Your task to perform on an android device: choose inbox layout in the gmail app Image 0: 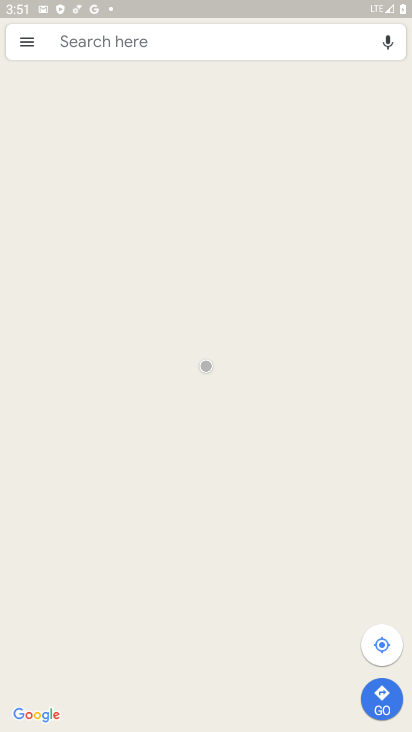
Step 0: press home button
Your task to perform on an android device: choose inbox layout in the gmail app Image 1: 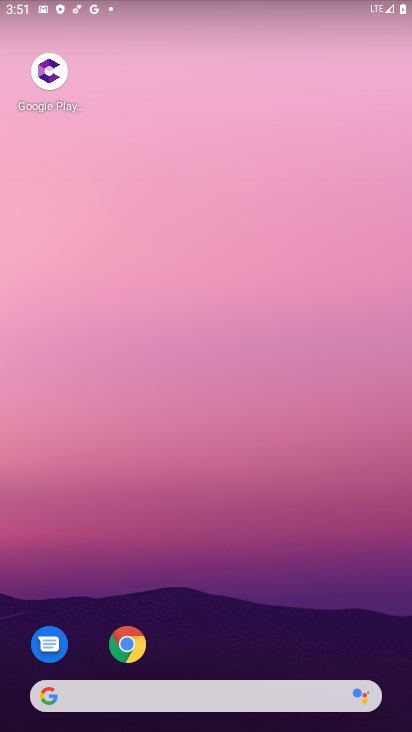
Step 1: drag from (178, 724) to (224, 48)
Your task to perform on an android device: choose inbox layout in the gmail app Image 2: 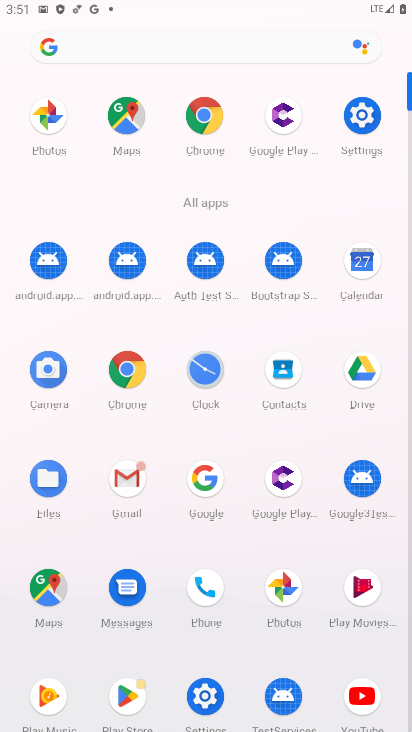
Step 2: click (132, 476)
Your task to perform on an android device: choose inbox layout in the gmail app Image 3: 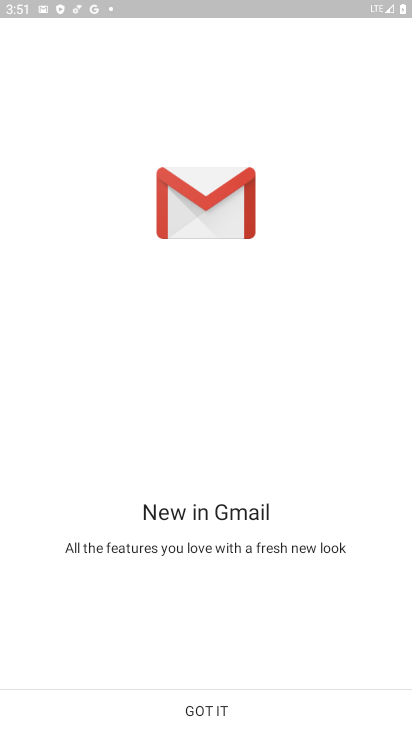
Step 3: click (202, 701)
Your task to perform on an android device: choose inbox layout in the gmail app Image 4: 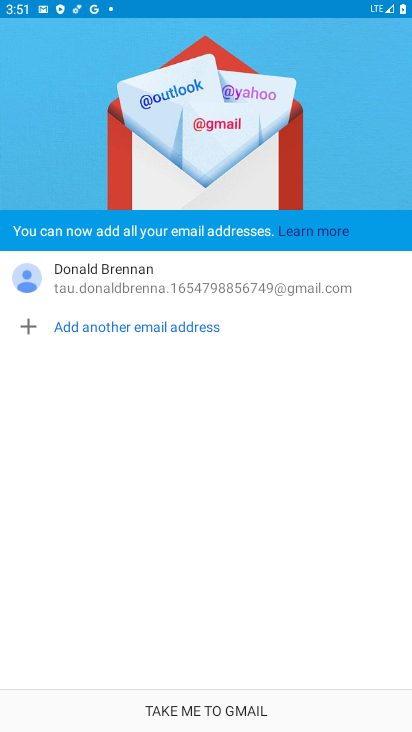
Step 4: click (202, 702)
Your task to perform on an android device: choose inbox layout in the gmail app Image 5: 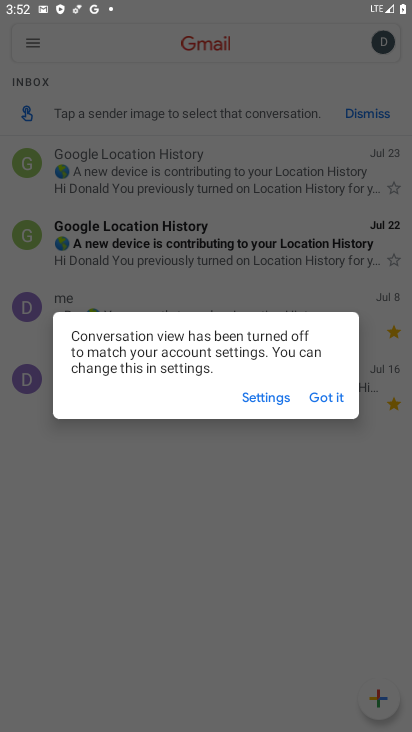
Step 5: click (319, 398)
Your task to perform on an android device: choose inbox layout in the gmail app Image 6: 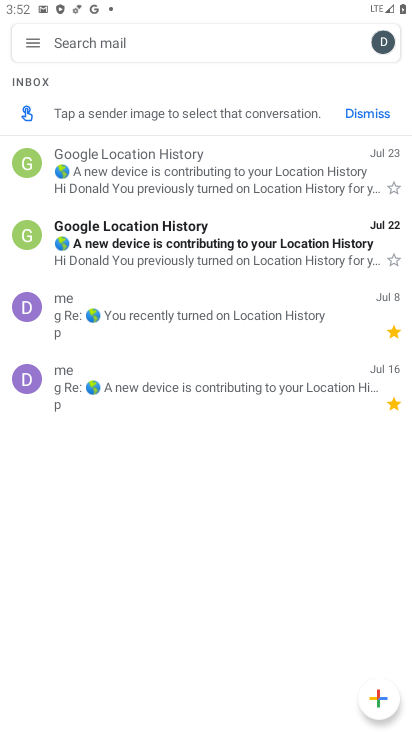
Step 6: click (29, 40)
Your task to perform on an android device: choose inbox layout in the gmail app Image 7: 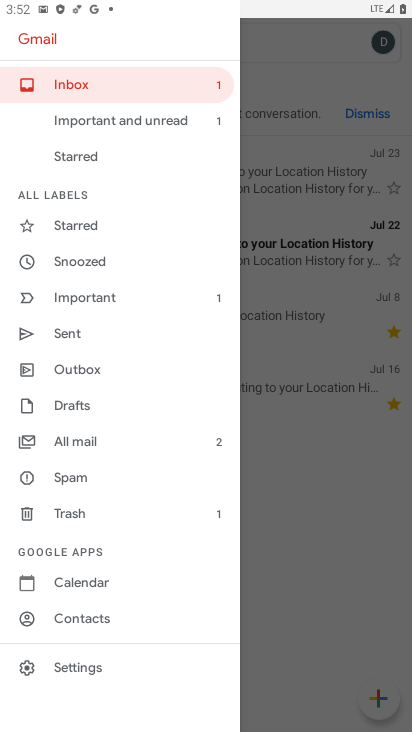
Step 7: click (63, 668)
Your task to perform on an android device: choose inbox layout in the gmail app Image 8: 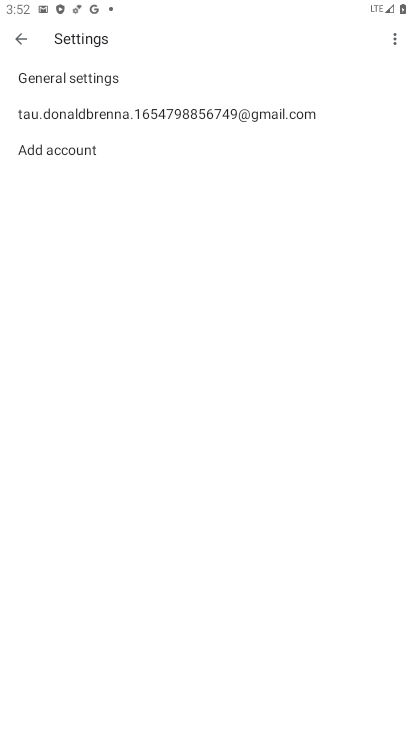
Step 8: click (138, 115)
Your task to perform on an android device: choose inbox layout in the gmail app Image 9: 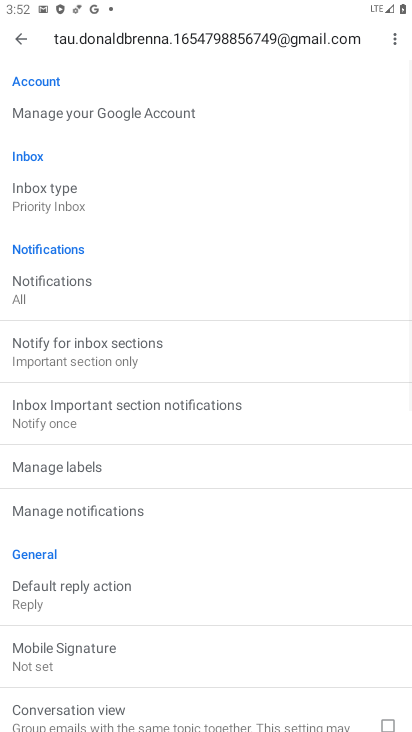
Step 9: click (44, 205)
Your task to perform on an android device: choose inbox layout in the gmail app Image 10: 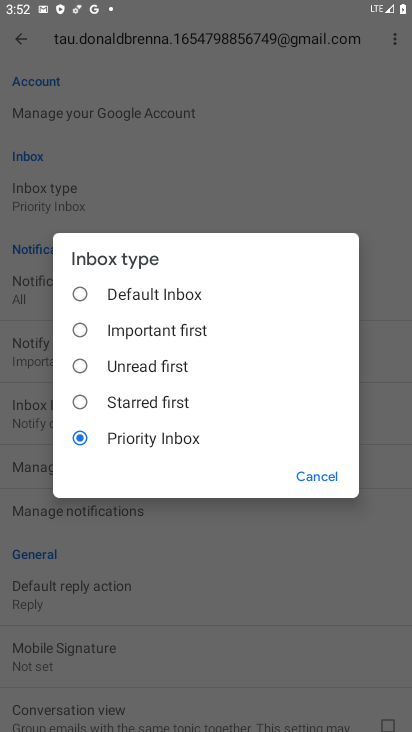
Step 10: click (79, 286)
Your task to perform on an android device: choose inbox layout in the gmail app Image 11: 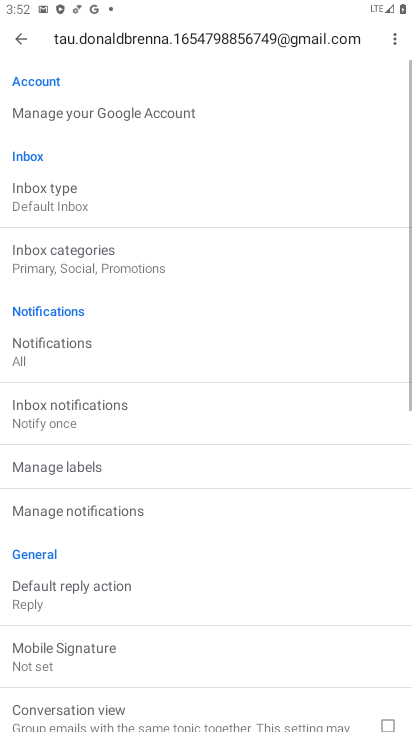
Step 11: task complete